Your task to perform on an android device: Add razer nari to the cart on newegg Image 0: 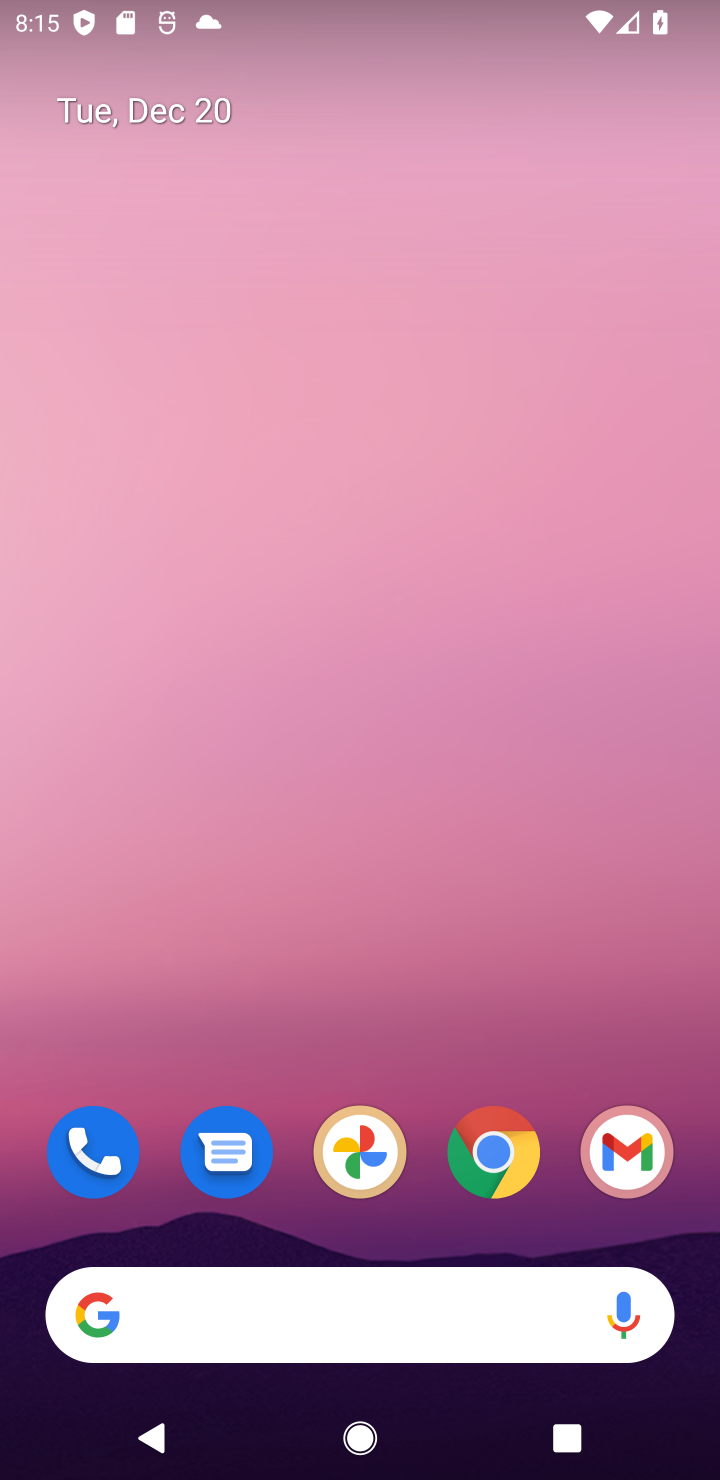
Step 0: click (468, 1141)
Your task to perform on an android device: Add razer nari to the cart on newegg Image 1: 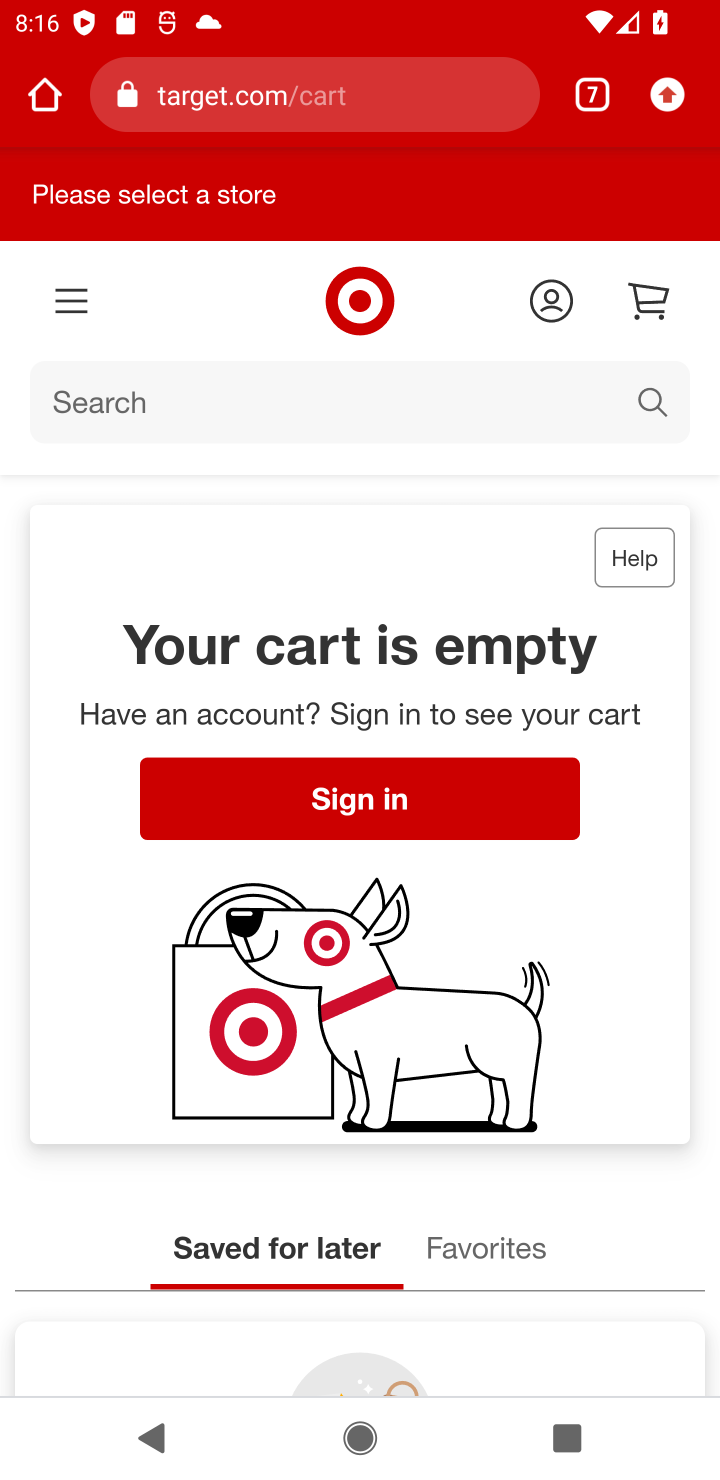
Step 1: click (587, 75)
Your task to perform on an android device: Add razer nari to the cart on newegg Image 2: 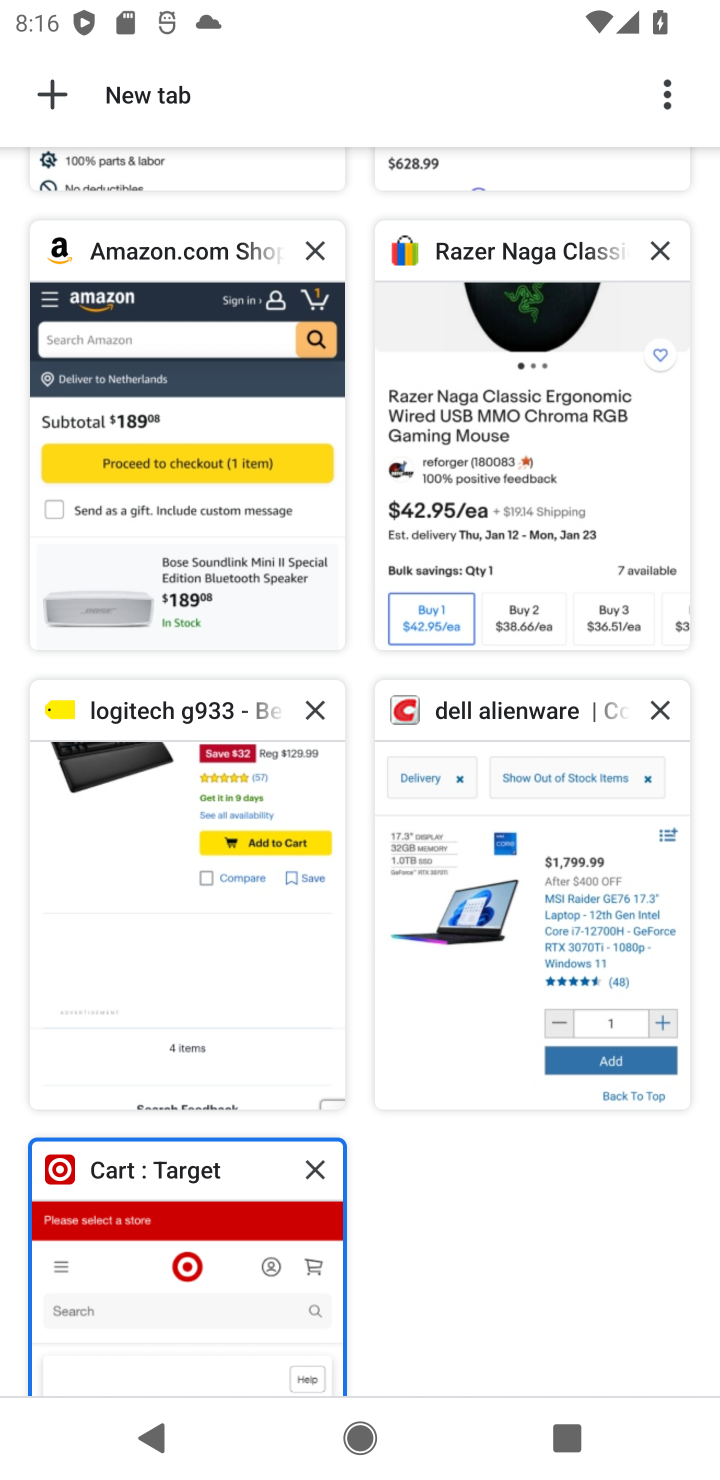
Step 2: drag from (255, 315) to (193, 922)
Your task to perform on an android device: Add razer nari to the cart on newegg Image 3: 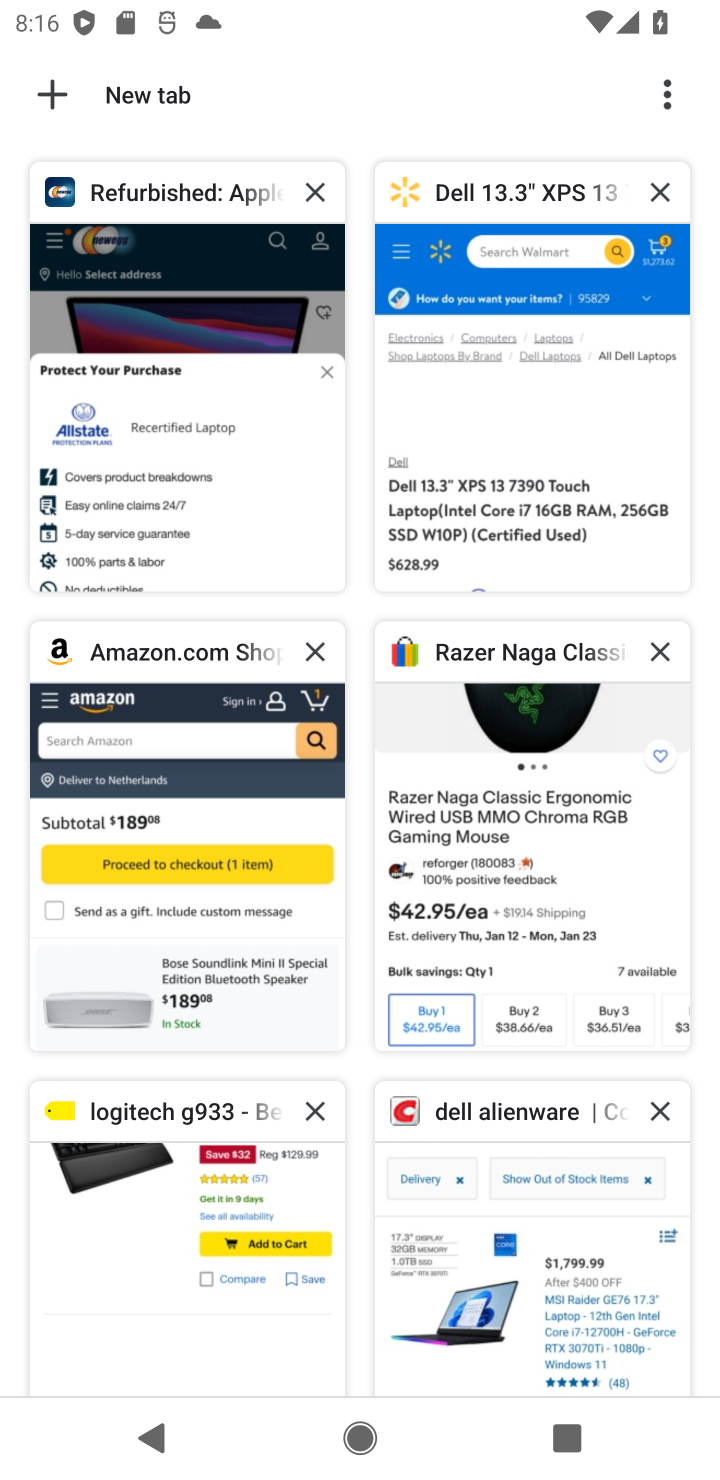
Step 3: click (196, 365)
Your task to perform on an android device: Add razer nari to the cart on newegg Image 4: 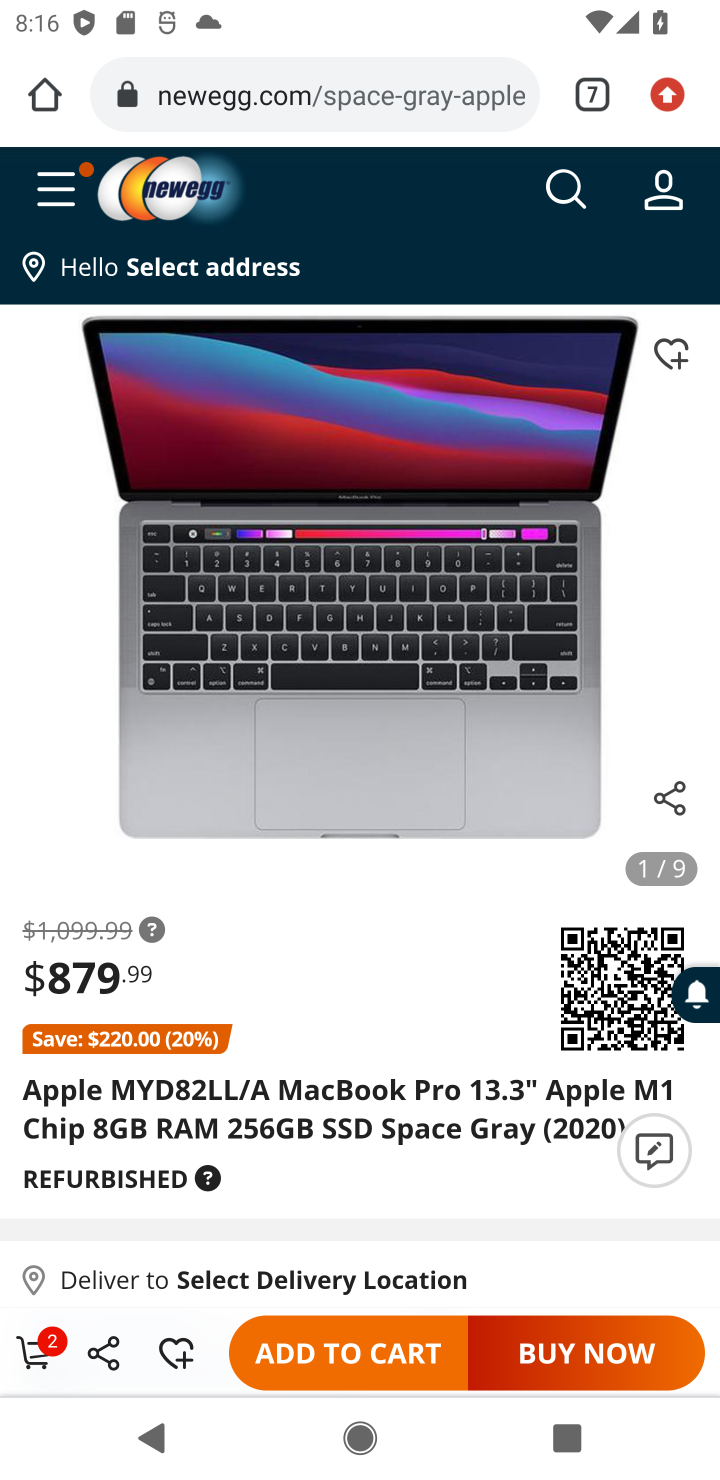
Step 4: click (580, 191)
Your task to perform on an android device: Add razer nari to the cart on newegg Image 5: 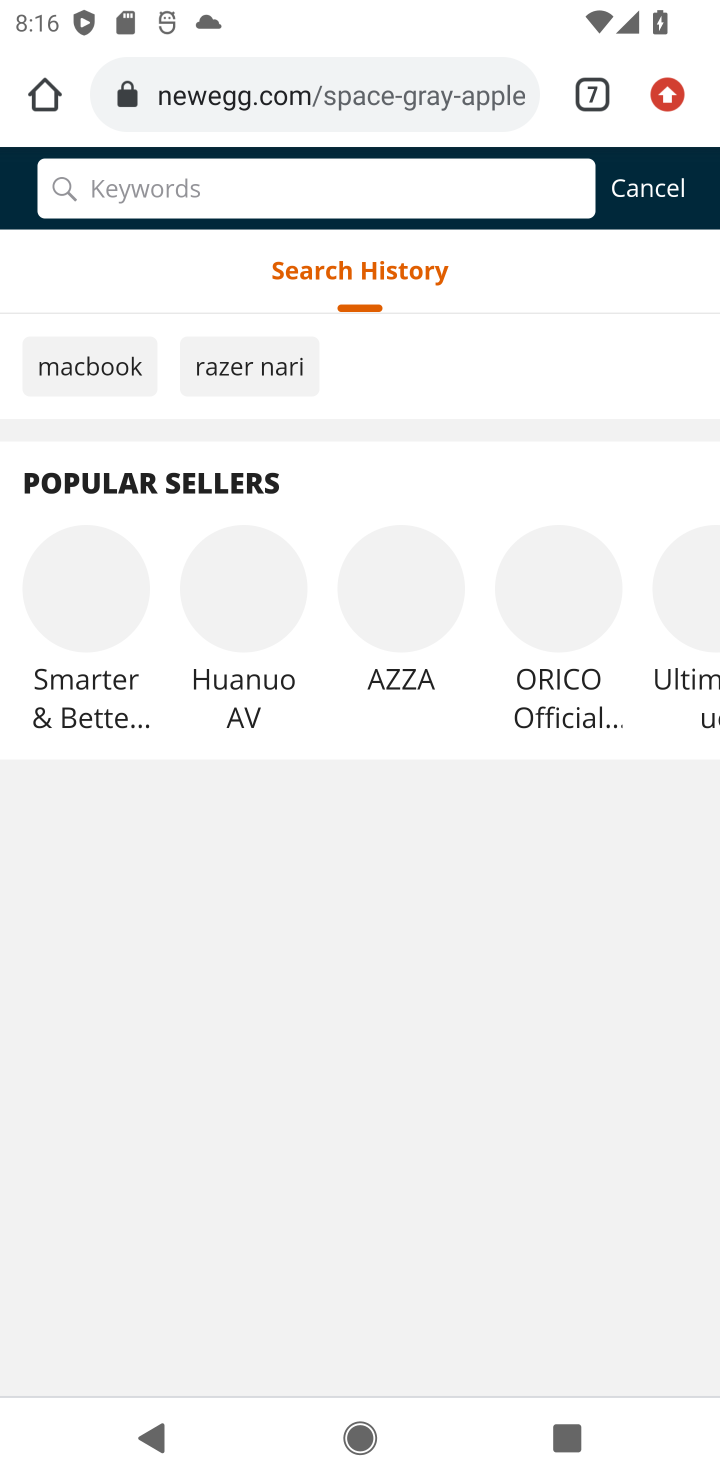
Step 5: type "razer nari "
Your task to perform on an android device: Add razer nari to the cart on newegg Image 6: 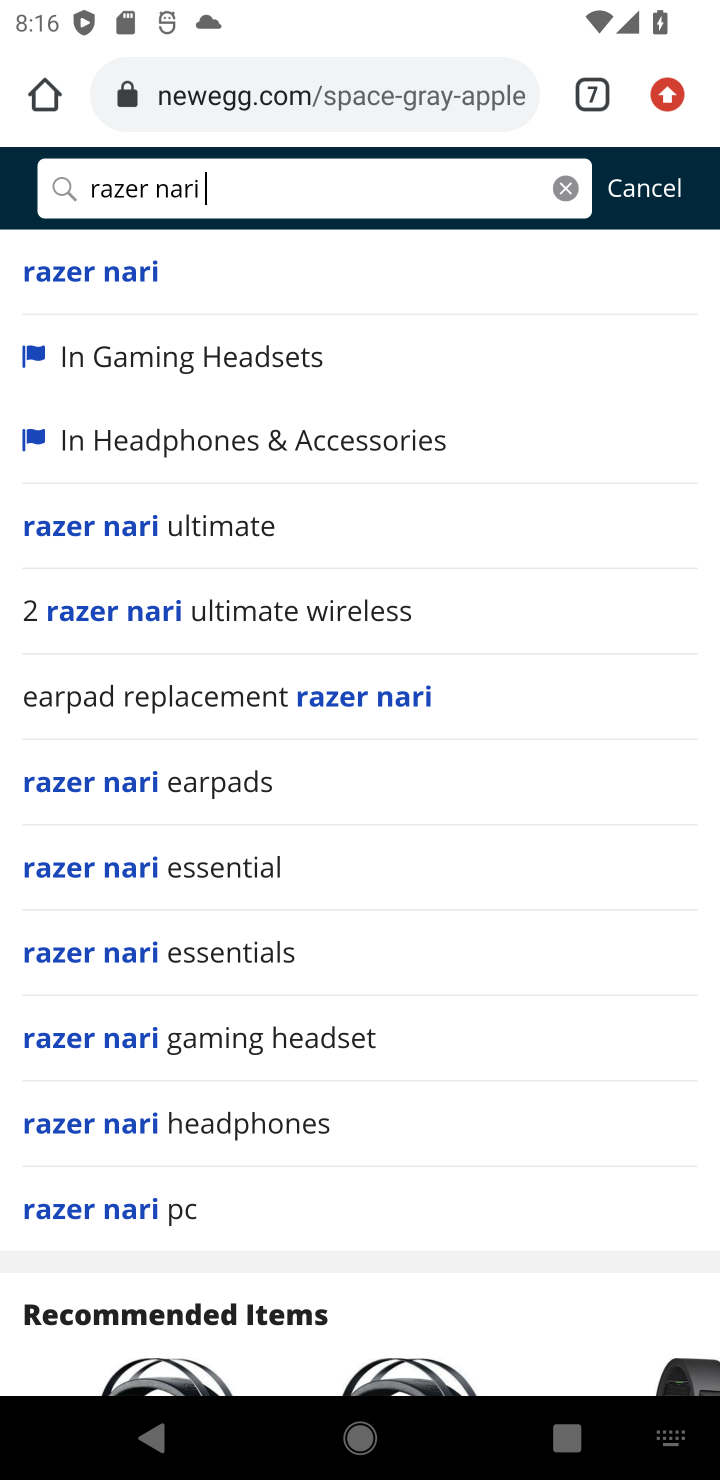
Step 6: click (111, 267)
Your task to perform on an android device: Add razer nari to the cart on newegg Image 7: 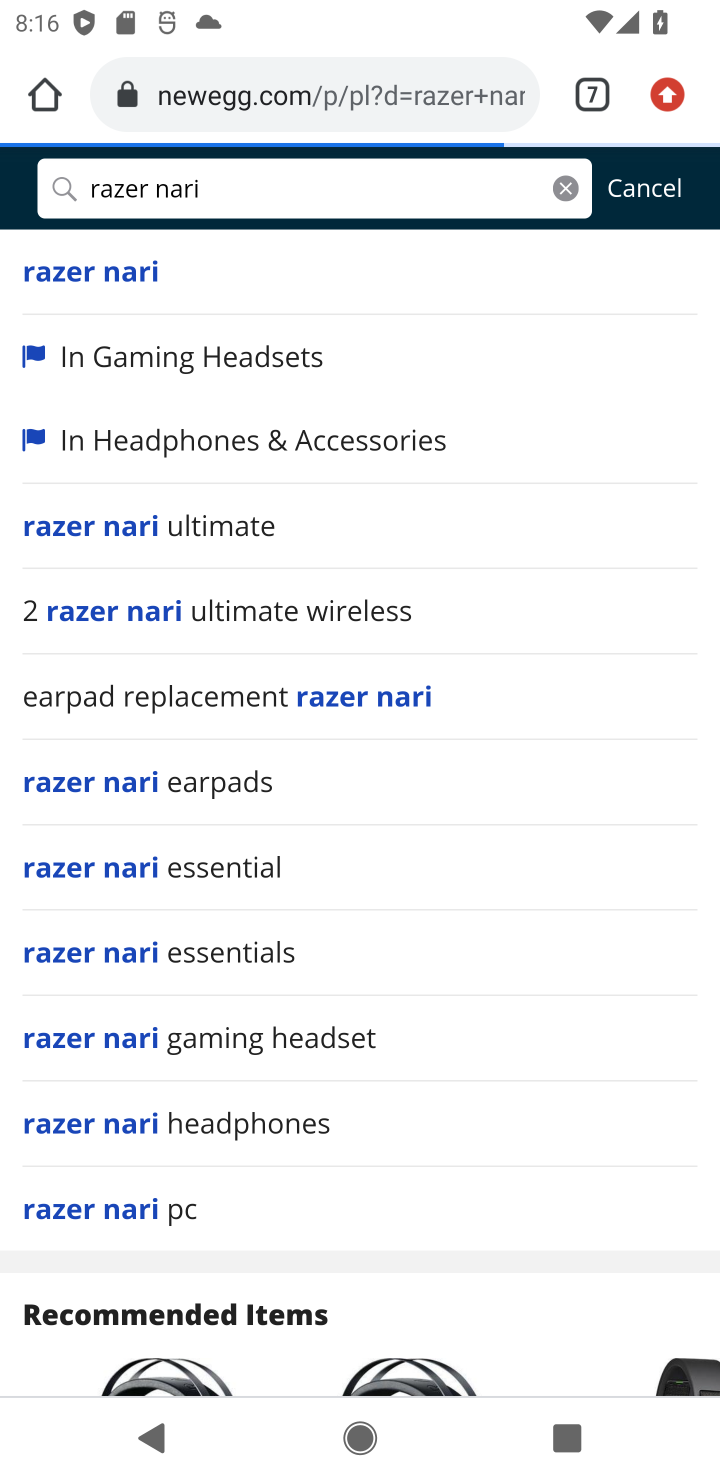
Step 7: click (92, 269)
Your task to perform on an android device: Add razer nari to the cart on newegg Image 8: 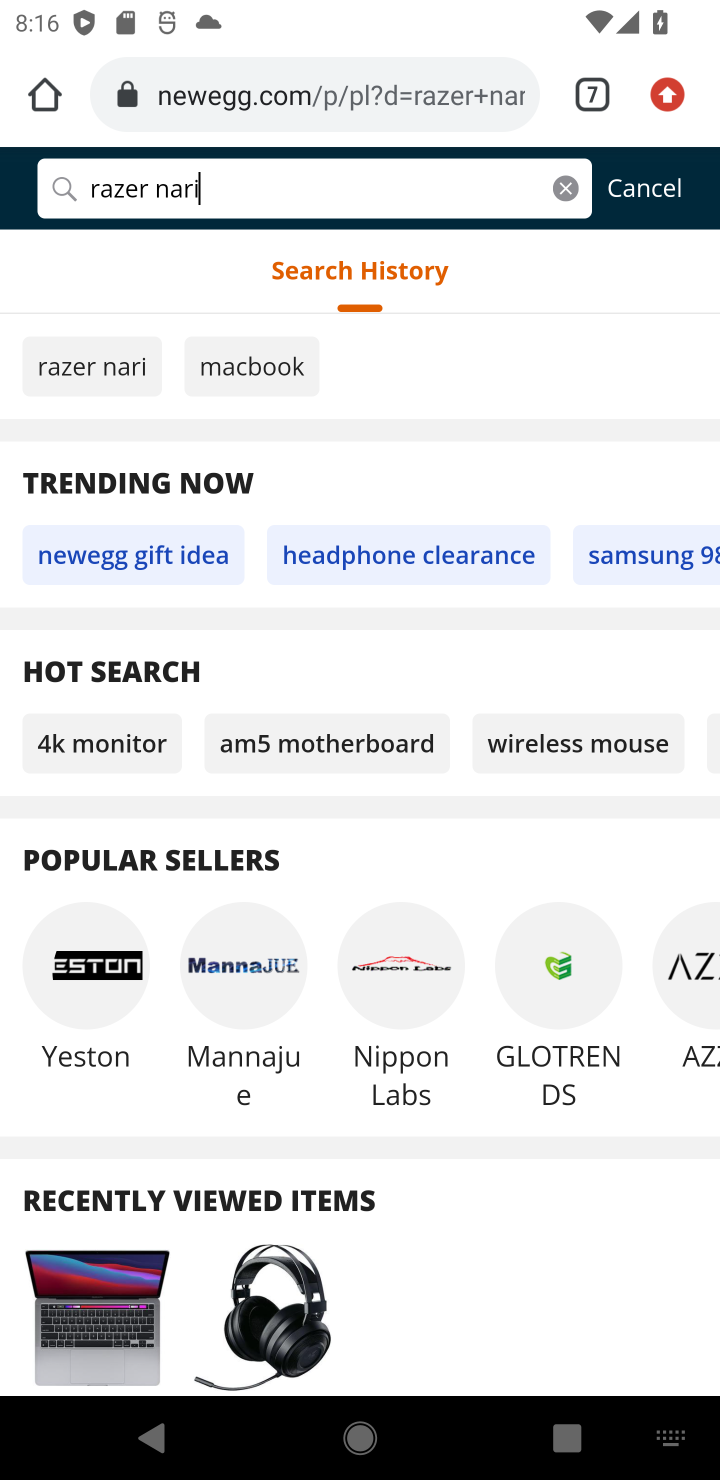
Step 8: drag from (399, 1263) to (527, 393)
Your task to perform on an android device: Add razer nari to the cart on newegg Image 9: 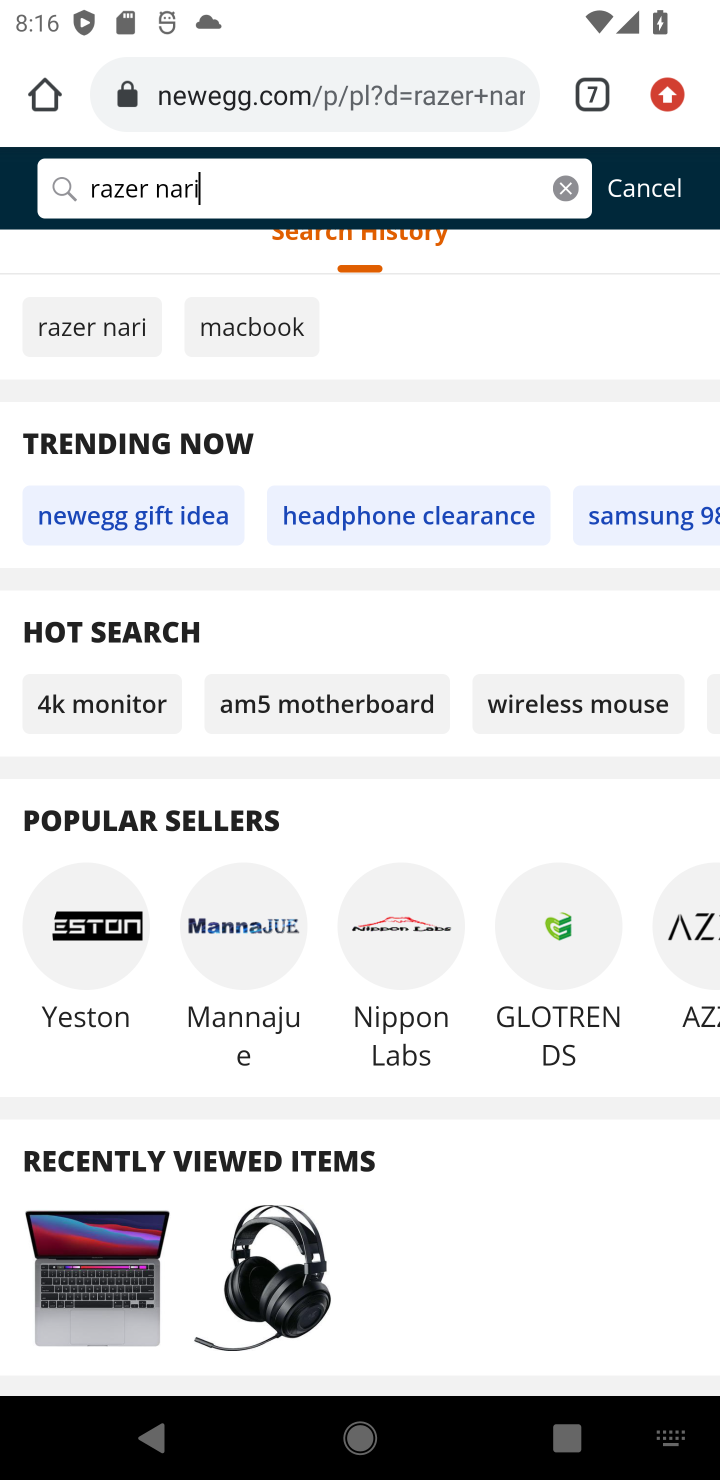
Step 9: drag from (410, 1219) to (529, 571)
Your task to perform on an android device: Add razer nari to the cart on newegg Image 10: 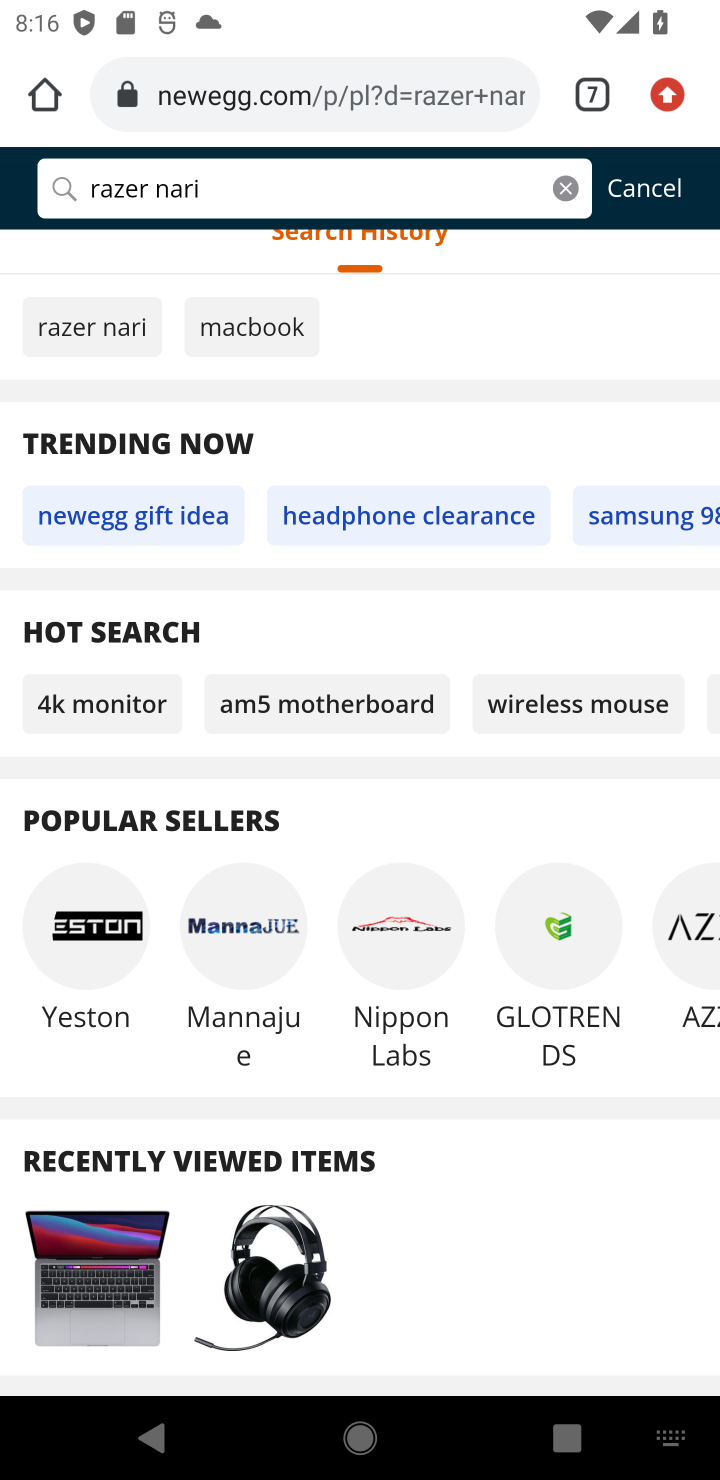
Step 10: press enter
Your task to perform on an android device: Add razer nari to the cart on newegg Image 11: 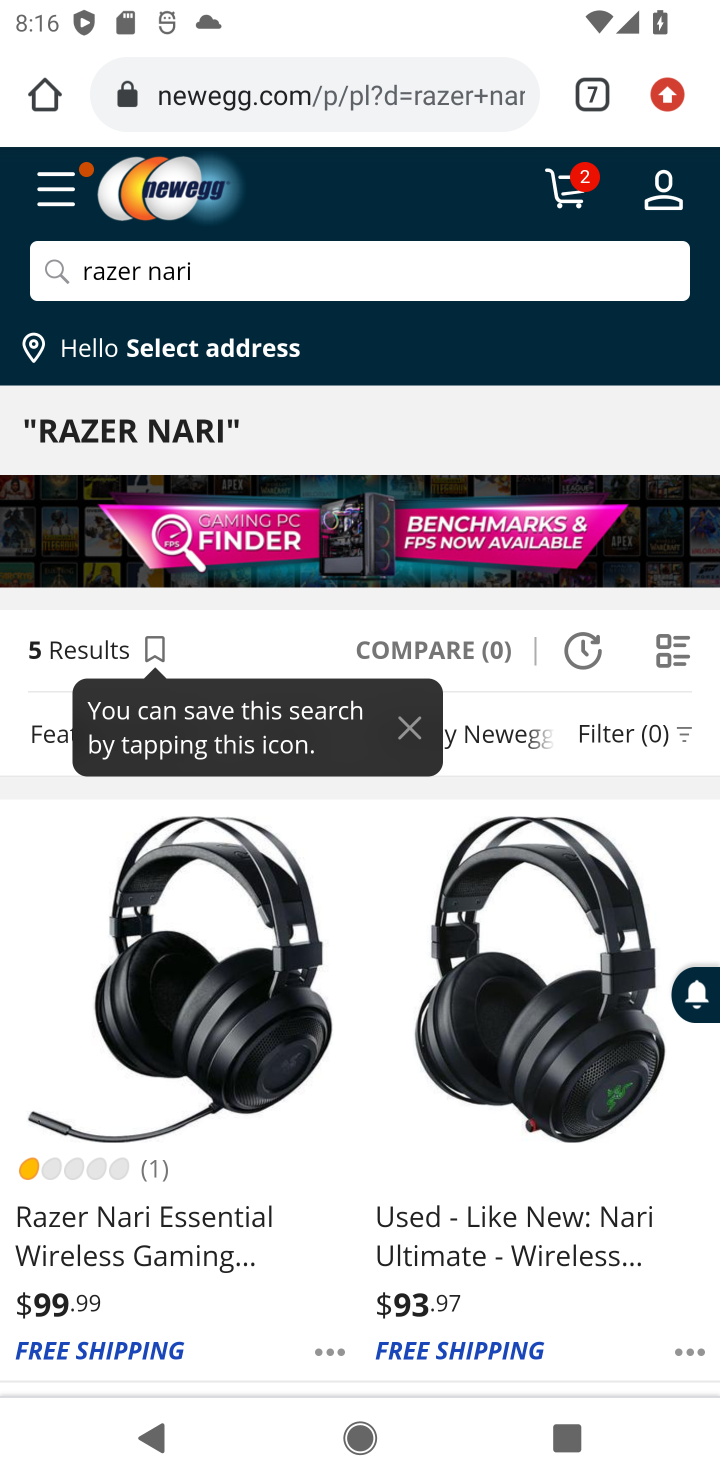
Step 11: click (176, 1235)
Your task to perform on an android device: Add razer nari to the cart on newegg Image 12: 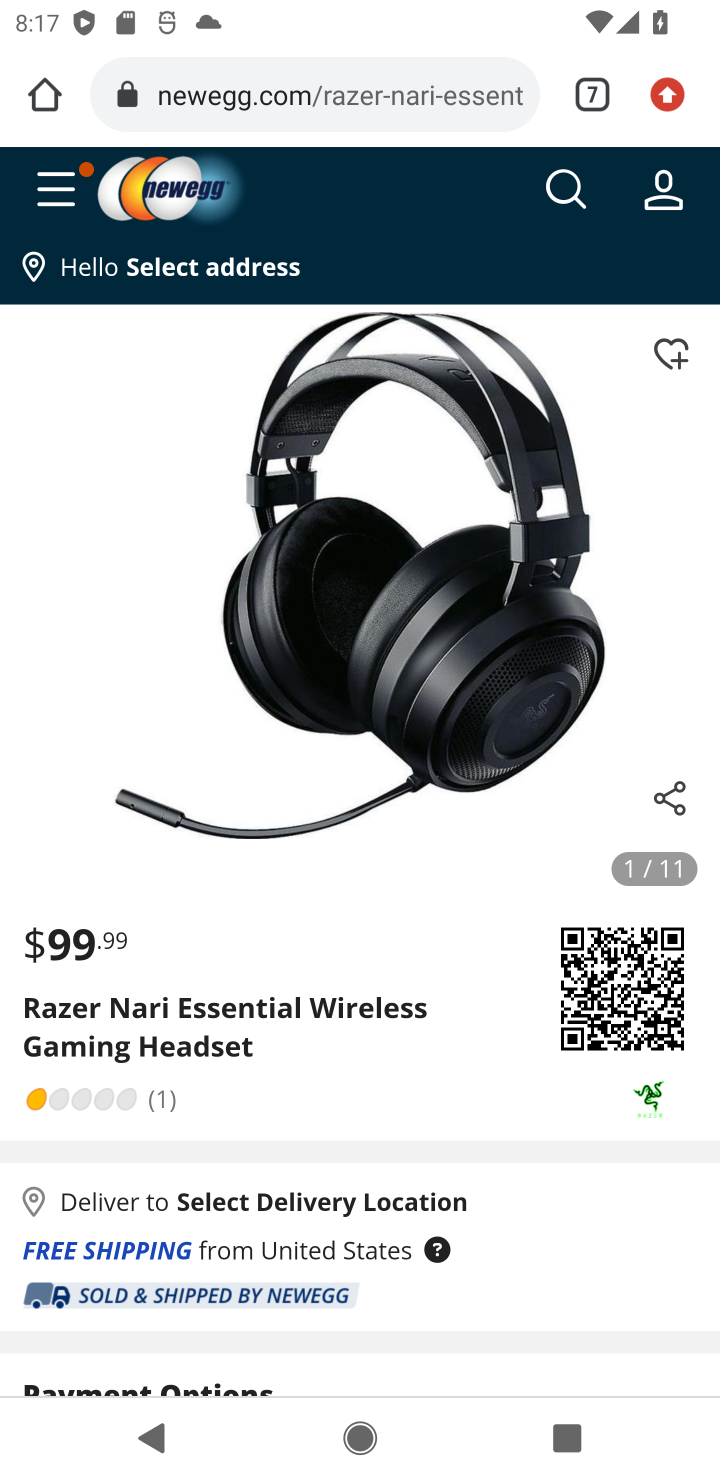
Step 12: click (333, 1346)
Your task to perform on an android device: Add razer nari to the cart on newegg Image 13: 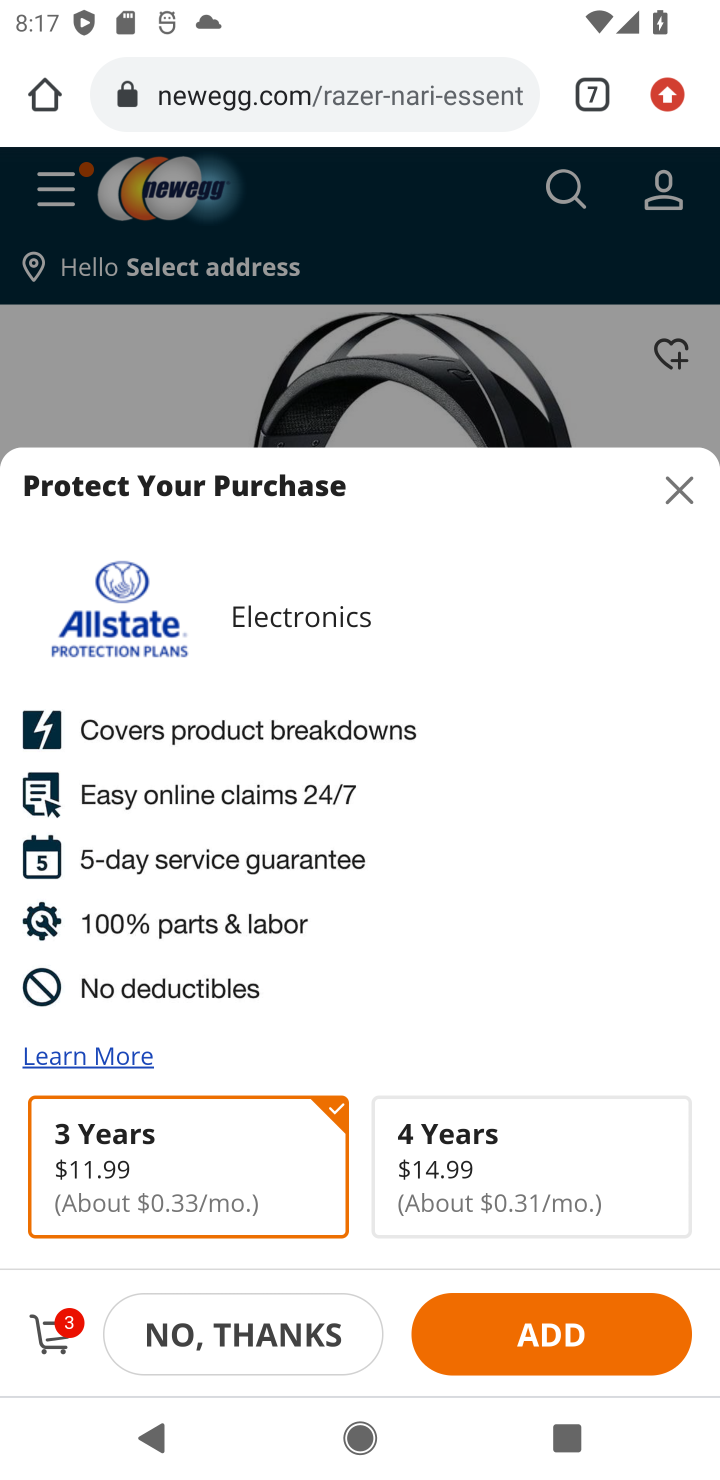
Step 13: task complete